Your task to perform on an android device: When is my next appointment? Image 0: 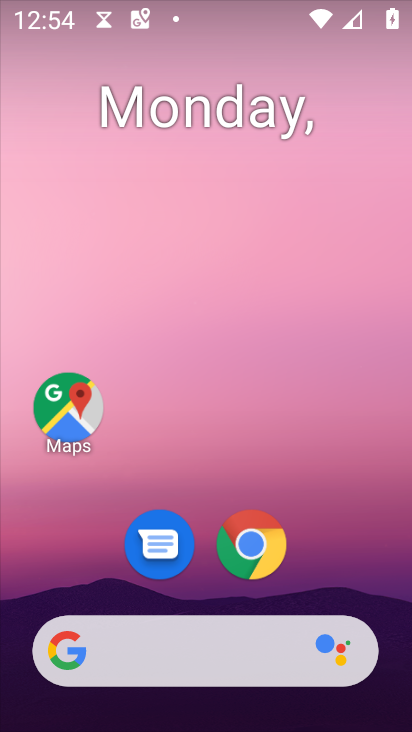
Step 0: drag from (306, 585) to (303, 327)
Your task to perform on an android device: When is my next appointment? Image 1: 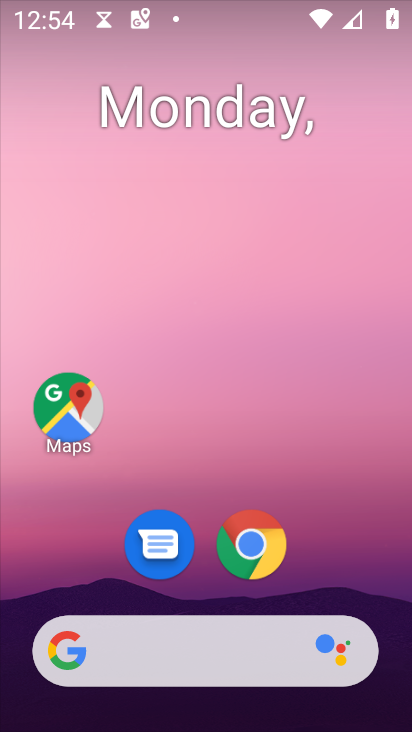
Step 1: drag from (317, 562) to (290, 294)
Your task to perform on an android device: When is my next appointment? Image 2: 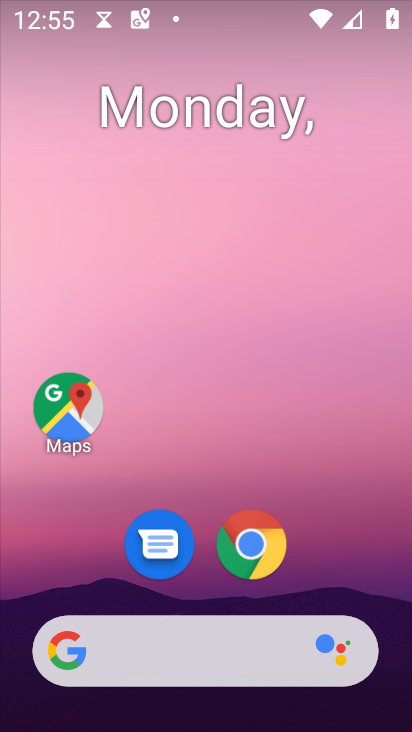
Step 2: drag from (336, 530) to (309, 241)
Your task to perform on an android device: When is my next appointment? Image 3: 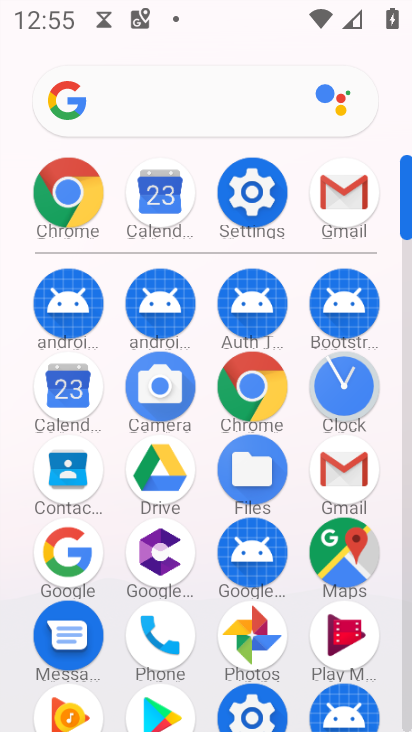
Step 3: click (74, 377)
Your task to perform on an android device: When is my next appointment? Image 4: 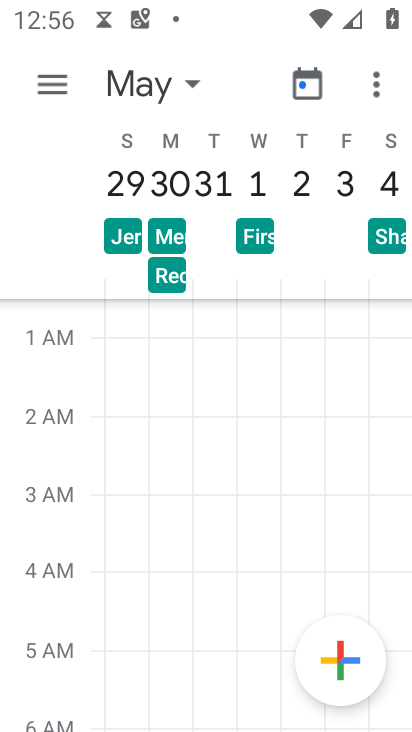
Step 4: click (43, 86)
Your task to perform on an android device: When is my next appointment? Image 5: 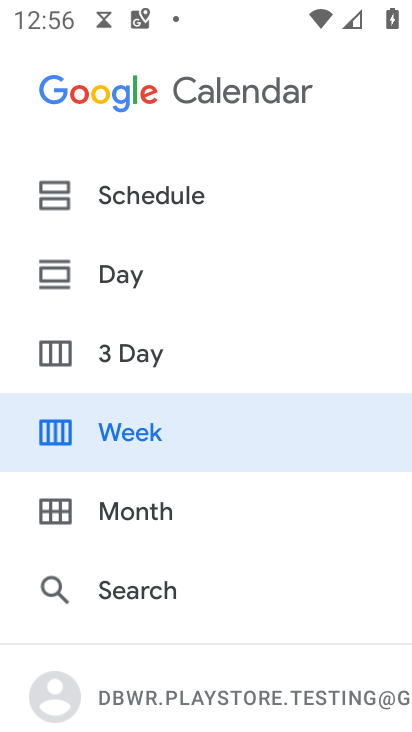
Step 5: click (130, 296)
Your task to perform on an android device: When is my next appointment? Image 6: 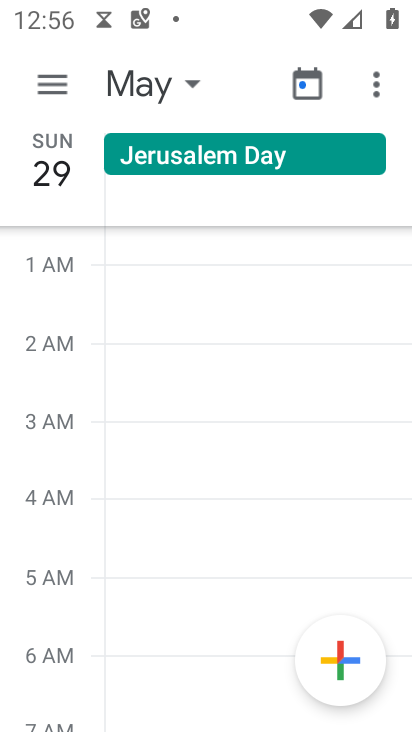
Step 6: task complete